Your task to perform on an android device: turn smart compose on in the gmail app Image 0: 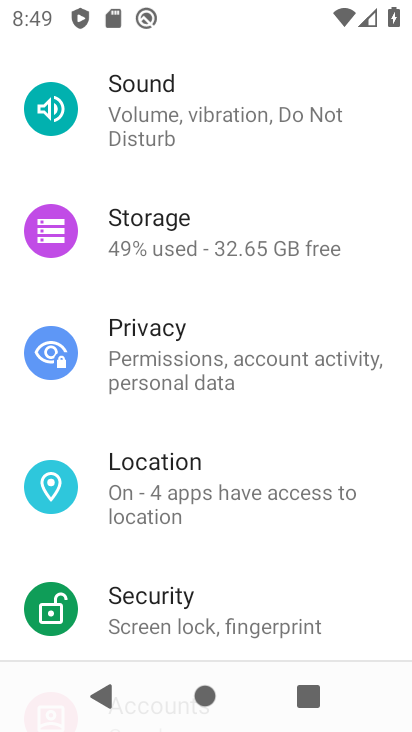
Step 0: press back button
Your task to perform on an android device: turn smart compose on in the gmail app Image 1: 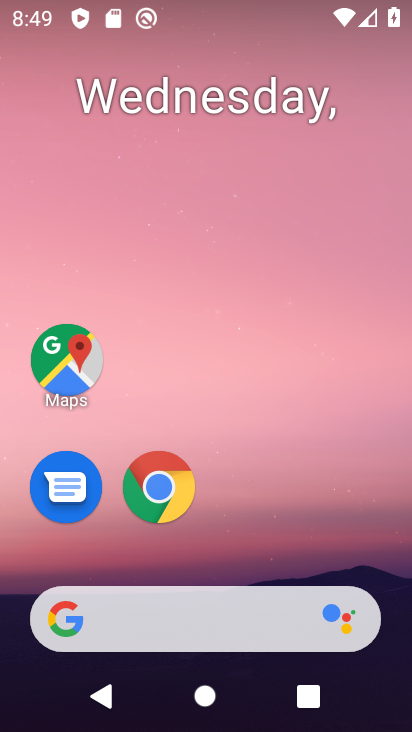
Step 1: drag from (231, 406) to (268, 34)
Your task to perform on an android device: turn smart compose on in the gmail app Image 2: 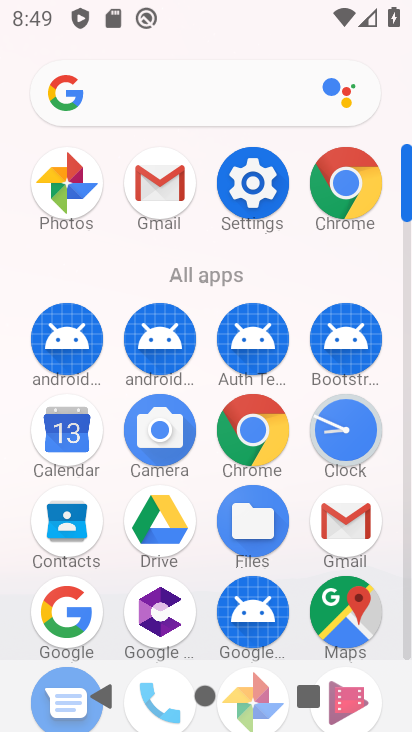
Step 2: click (165, 178)
Your task to perform on an android device: turn smart compose on in the gmail app Image 3: 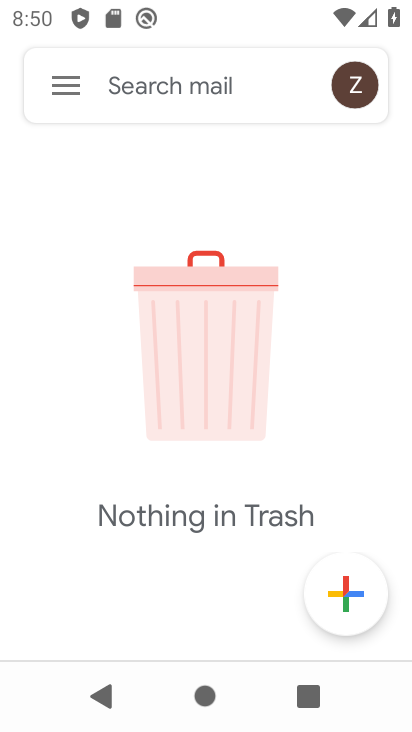
Step 3: click (59, 86)
Your task to perform on an android device: turn smart compose on in the gmail app Image 4: 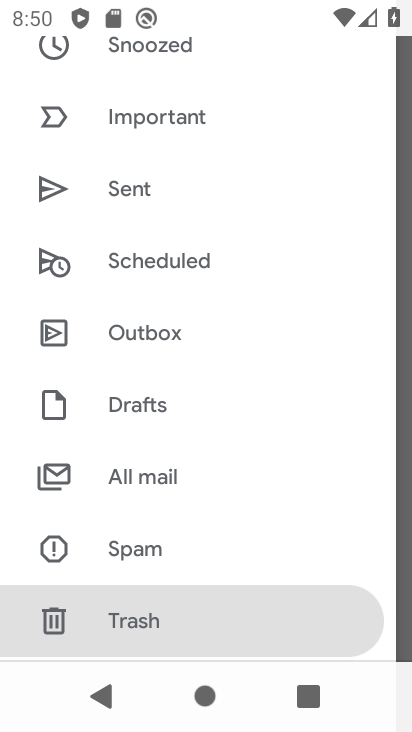
Step 4: drag from (240, 606) to (310, 93)
Your task to perform on an android device: turn smart compose on in the gmail app Image 5: 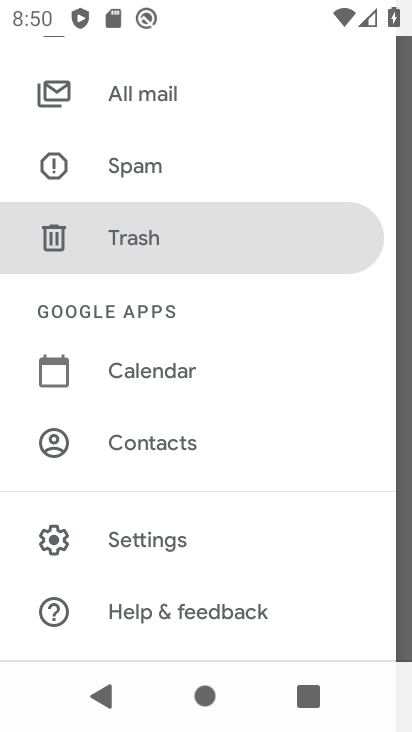
Step 5: drag from (219, 169) to (298, 1)
Your task to perform on an android device: turn smart compose on in the gmail app Image 6: 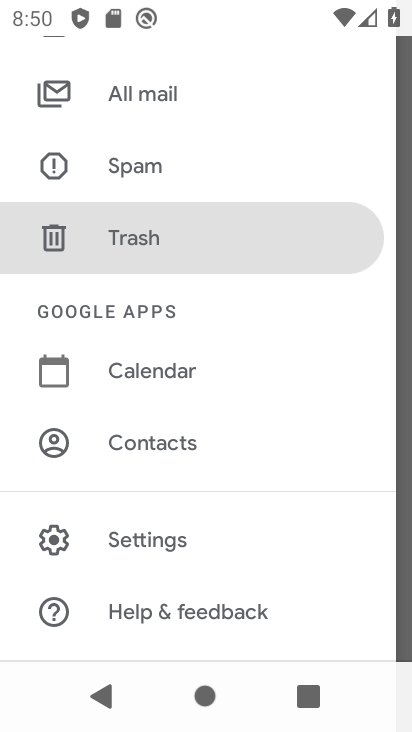
Step 6: click (161, 538)
Your task to perform on an android device: turn smart compose on in the gmail app Image 7: 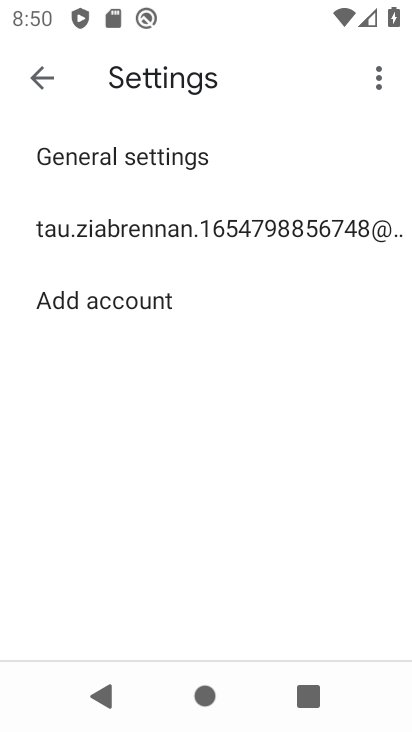
Step 7: click (139, 245)
Your task to perform on an android device: turn smart compose on in the gmail app Image 8: 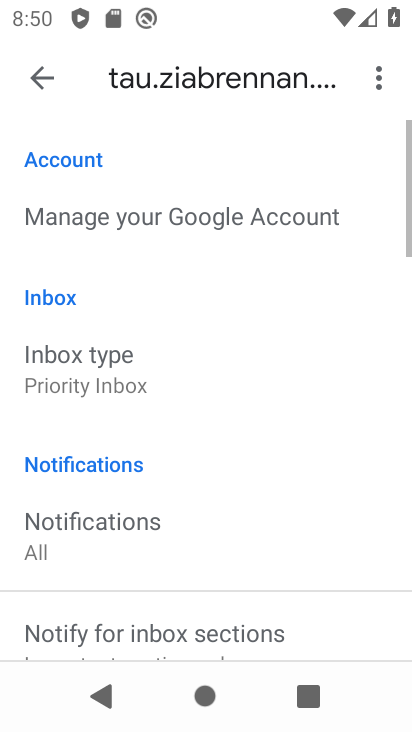
Step 8: task complete